Your task to perform on an android device: turn off wifi Image 0: 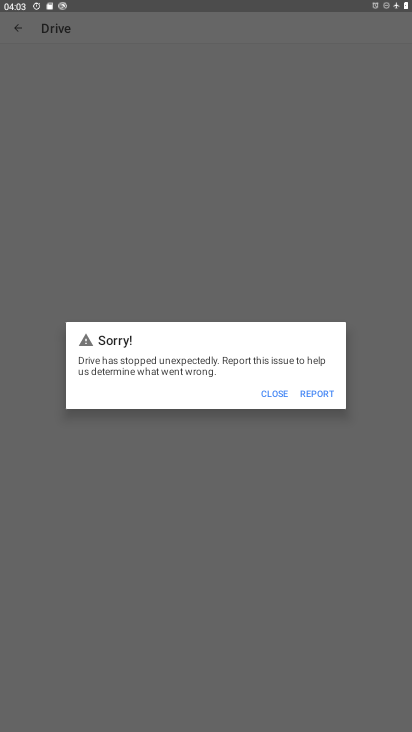
Step 0: press home button
Your task to perform on an android device: turn off wifi Image 1: 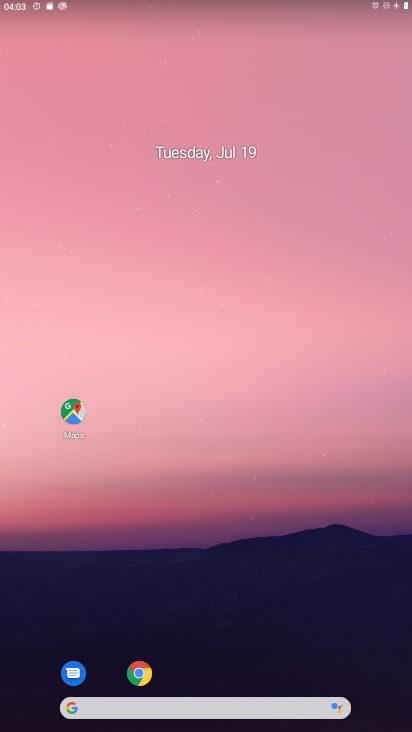
Step 1: drag from (262, 625) to (214, 38)
Your task to perform on an android device: turn off wifi Image 2: 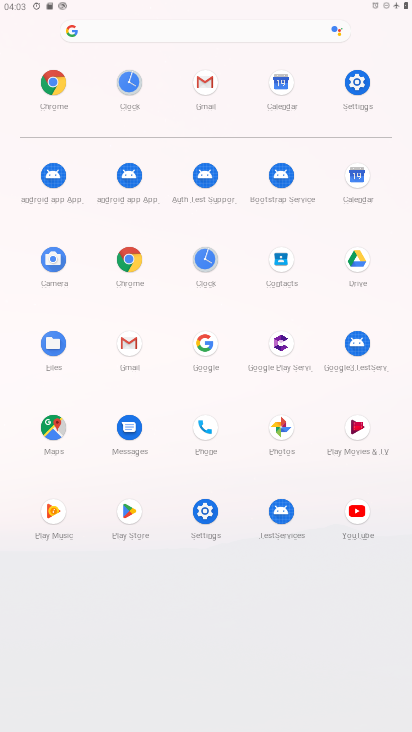
Step 2: click (209, 525)
Your task to perform on an android device: turn off wifi Image 3: 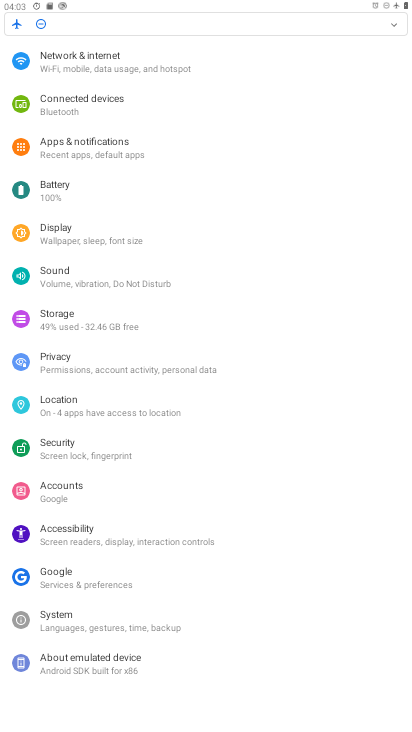
Step 3: click (206, 518)
Your task to perform on an android device: turn off wifi Image 4: 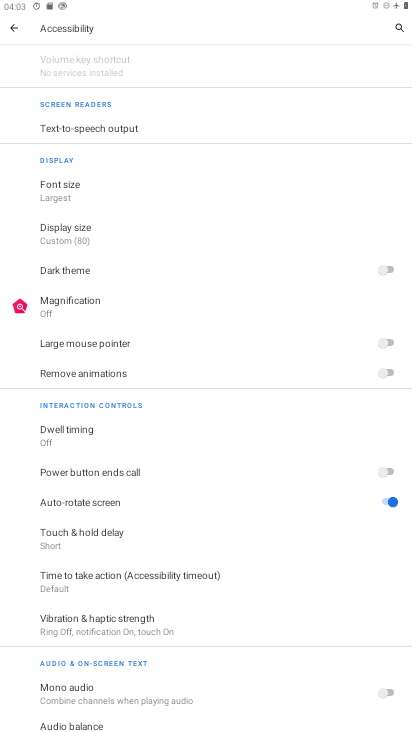
Step 4: click (11, 29)
Your task to perform on an android device: turn off wifi Image 5: 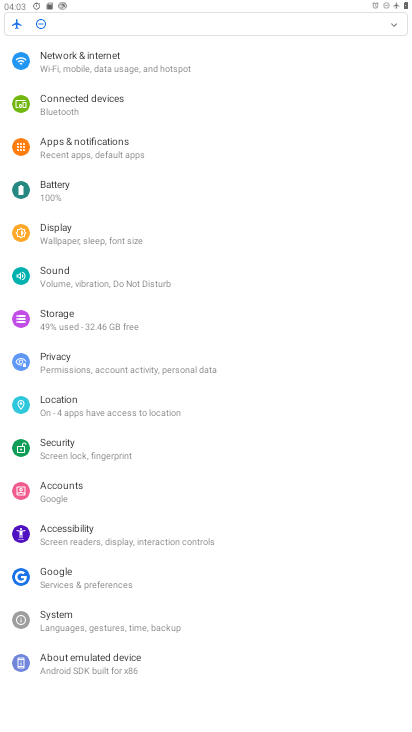
Step 5: click (118, 66)
Your task to perform on an android device: turn off wifi Image 6: 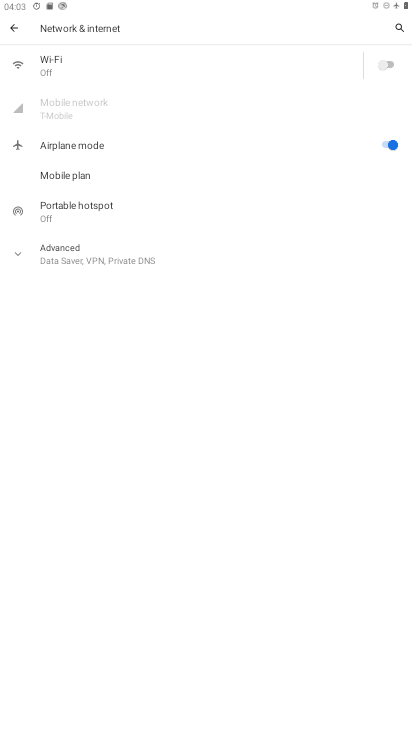
Step 6: task complete